Your task to perform on an android device: make emails show in primary in the gmail app Image 0: 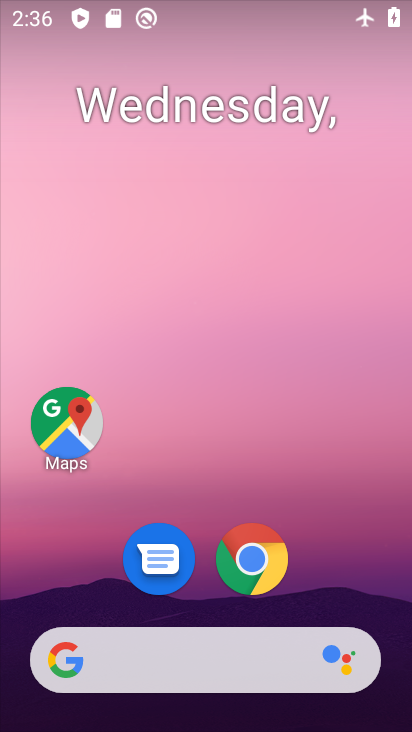
Step 0: drag from (208, 724) to (186, 63)
Your task to perform on an android device: make emails show in primary in the gmail app Image 1: 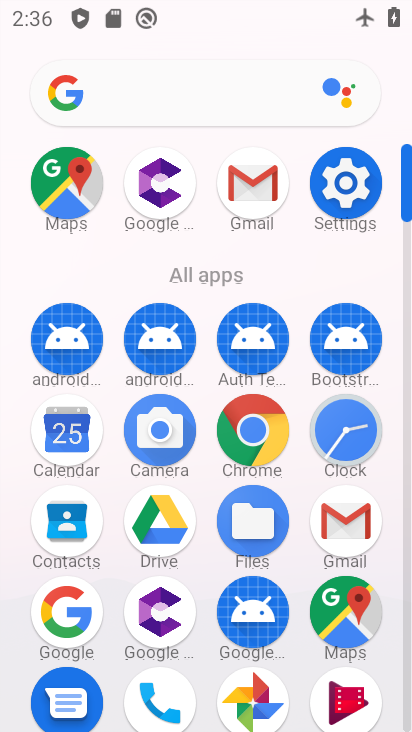
Step 1: click (257, 187)
Your task to perform on an android device: make emails show in primary in the gmail app Image 2: 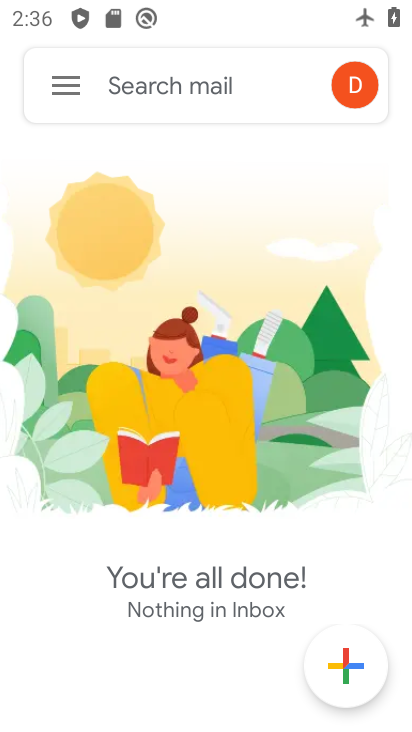
Step 2: click (68, 90)
Your task to perform on an android device: make emails show in primary in the gmail app Image 3: 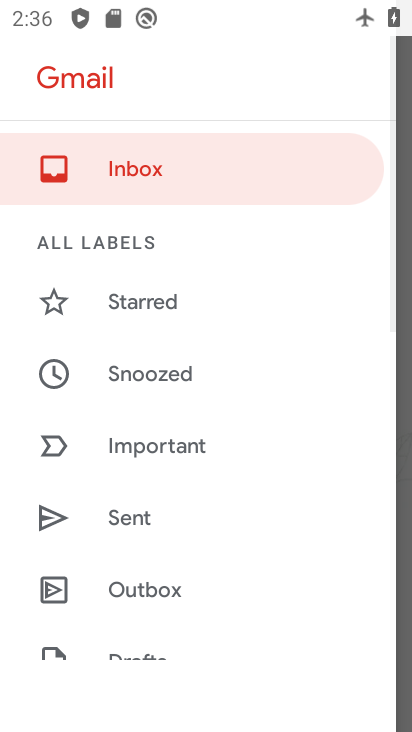
Step 3: drag from (122, 642) to (127, 195)
Your task to perform on an android device: make emails show in primary in the gmail app Image 4: 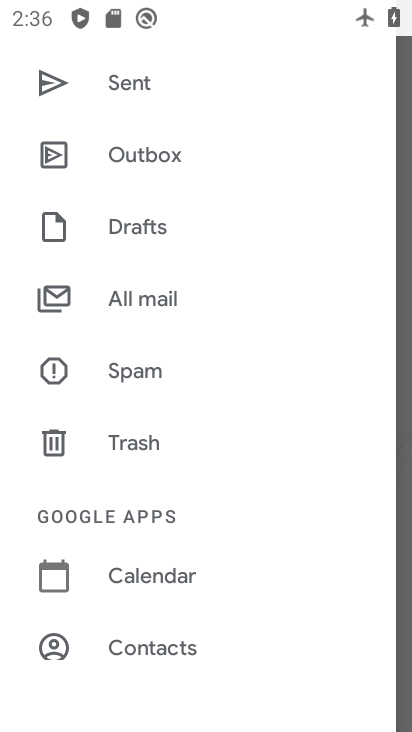
Step 4: drag from (177, 634) to (169, 178)
Your task to perform on an android device: make emails show in primary in the gmail app Image 5: 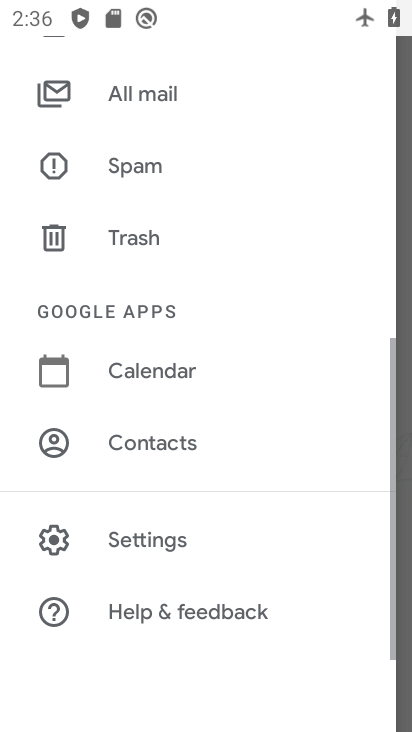
Step 5: click (150, 548)
Your task to perform on an android device: make emails show in primary in the gmail app Image 6: 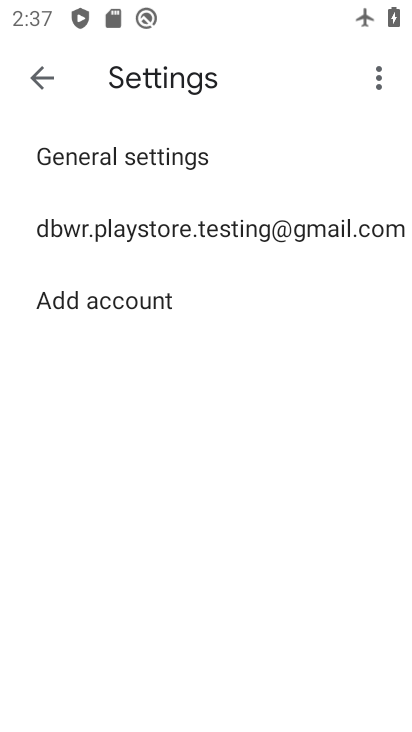
Step 6: click (139, 225)
Your task to perform on an android device: make emails show in primary in the gmail app Image 7: 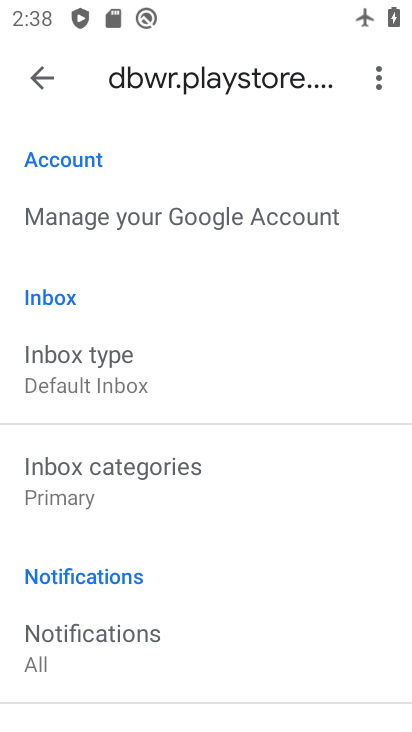
Step 7: task complete